Your task to perform on an android device: Open the web browser Image 0: 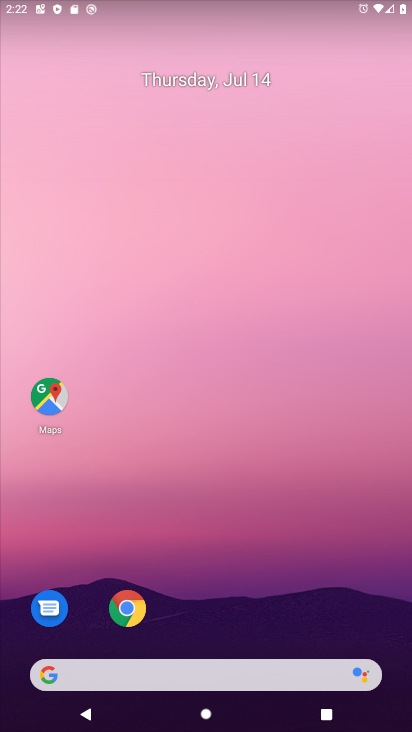
Step 0: press home button
Your task to perform on an android device: Open the web browser Image 1: 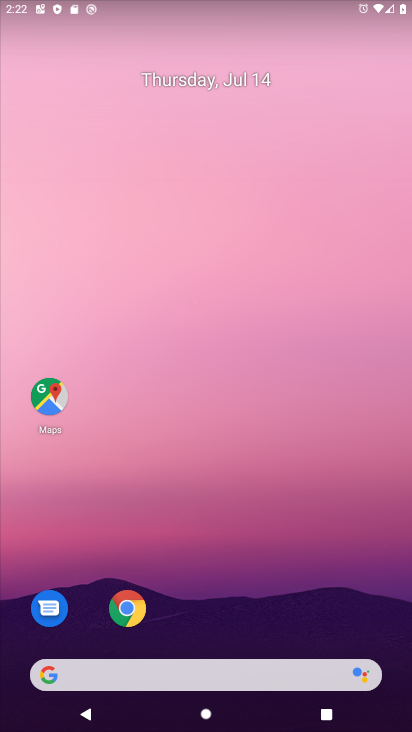
Step 1: click (126, 606)
Your task to perform on an android device: Open the web browser Image 2: 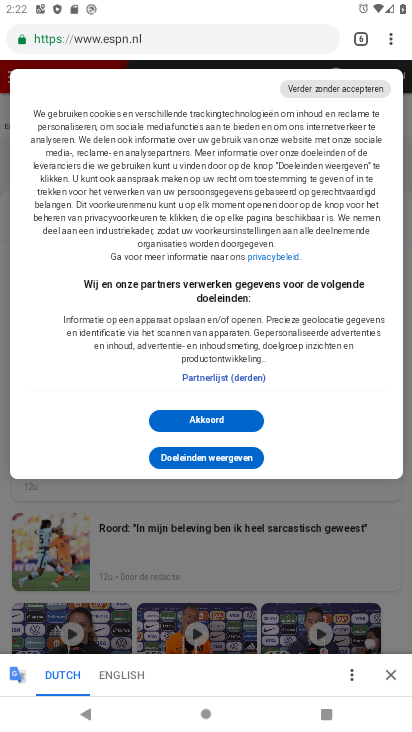
Step 2: task complete